Your task to perform on an android device: see tabs open on other devices in the chrome app Image 0: 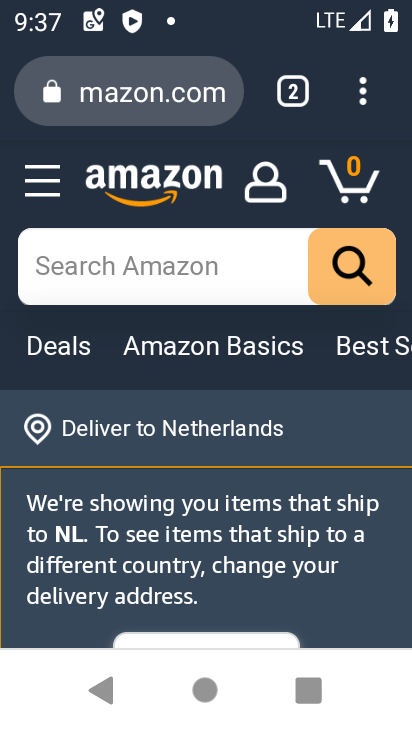
Step 0: click (364, 93)
Your task to perform on an android device: see tabs open on other devices in the chrome app Image 1: 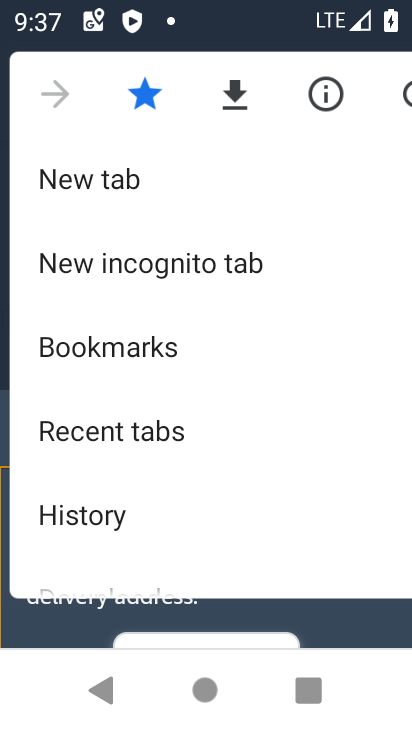
Step 1: click (126, 508)
Your task to perform on an android device: see tabs open on other devices in the chrome app Image 2: 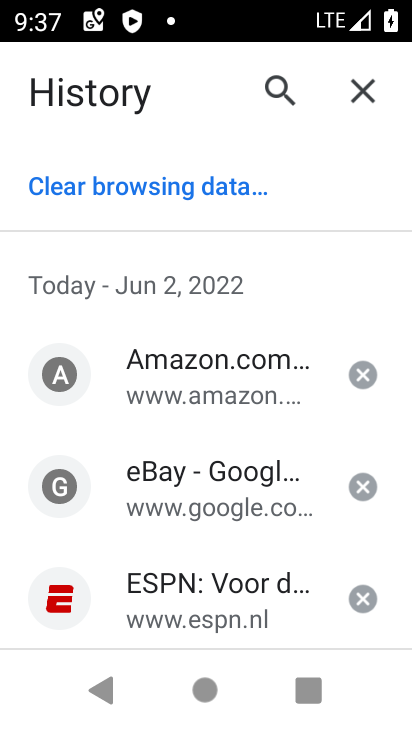
Step 2: task complete